Your task to perform on an android device: turn on the 24-hour format for clock Image 0: 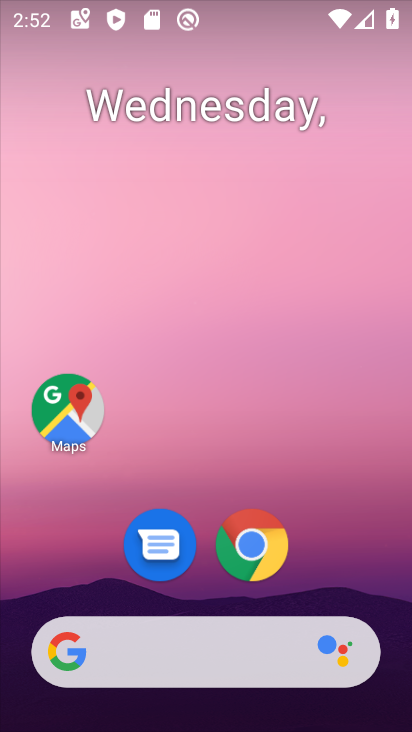
Step 0: press home button
Your task to perform on an android device: turn on the 24-hour format for clock Image 1: 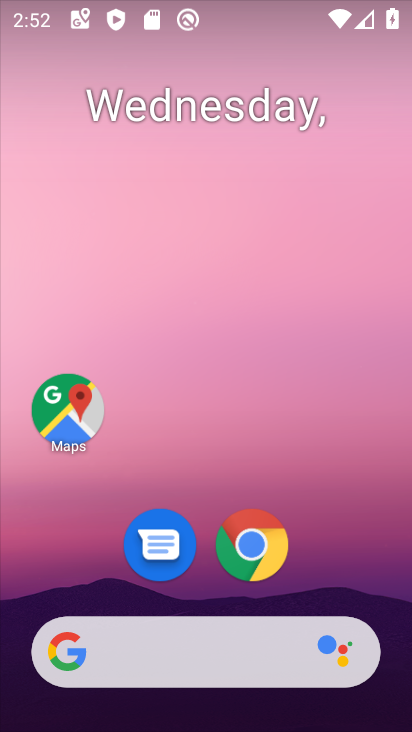
Step 1: drag from (175, 656) to (323, 125)
Your task to perform on an android device: turn on the 24-hour format for clock Image 2: 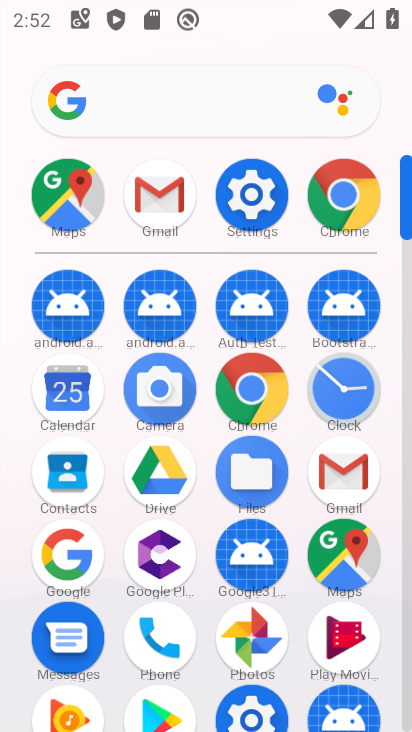
Step 2: click (359, 397)
Your task to perform on an android device: turn on the 24-hour format for clock Image 3: 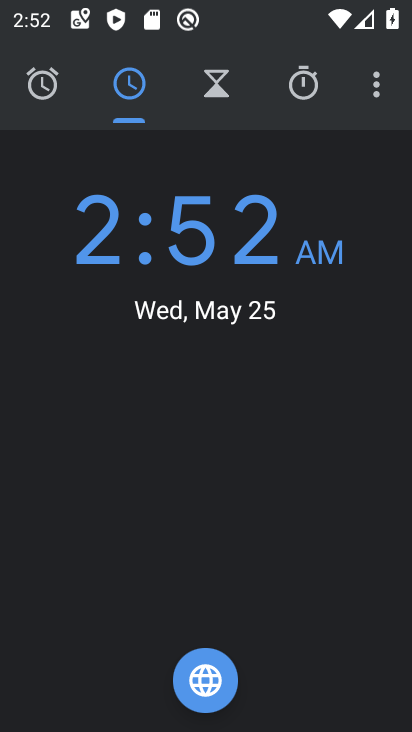
Step 3: click (371, 105)
Your task to perform on an android device: turn on the 24-hour format for clock Image 4: 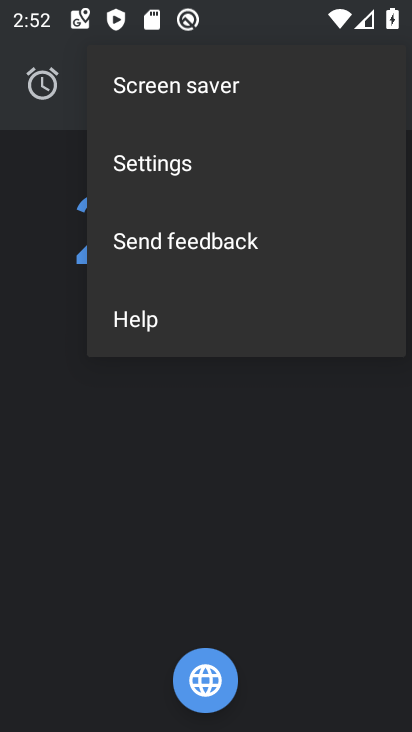
Step 4: click (155, 175)
Your task to perform on an android device: turn on the 24-hour format for clock Image 5: 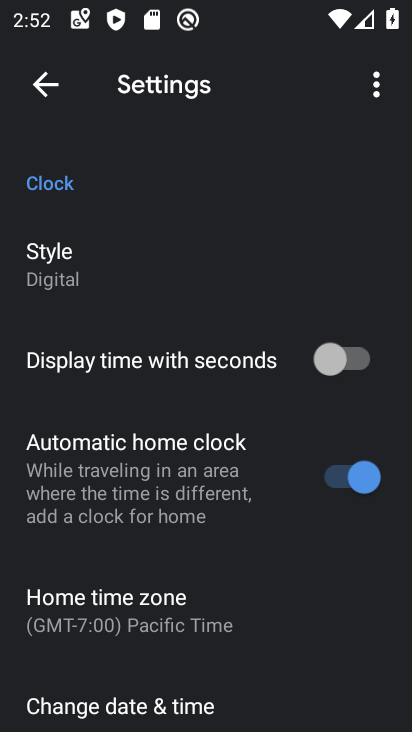
Step 5: drag from (159, 597) to (278, 159)
Your task to perform on an android device: turn on the 24-hour format for clock Image 6: 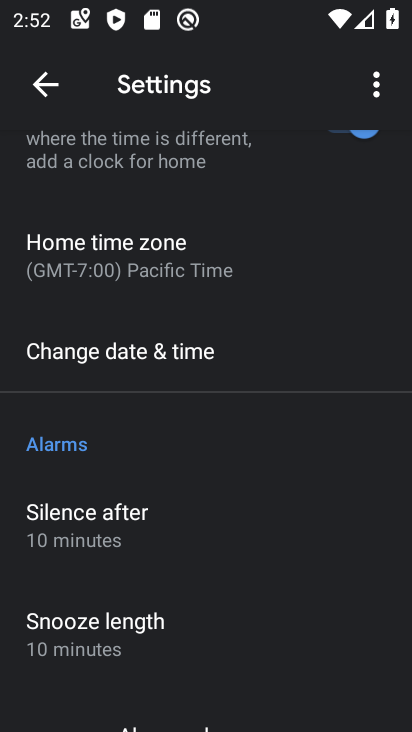
Step 6: click (140, 354)
Your task to perform on an android device: turn on the 24-hour format for clock Image 7: 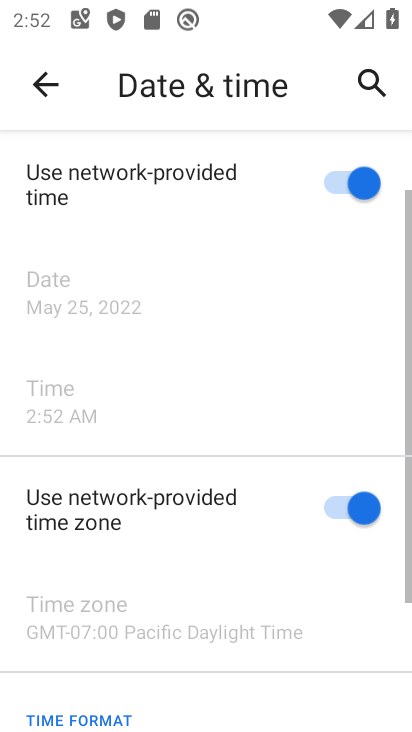
Step 7: drag from (167, 595) to (299, 194)
Your task to perform on an android device: turn on the 24-hour format for clock Image 8: 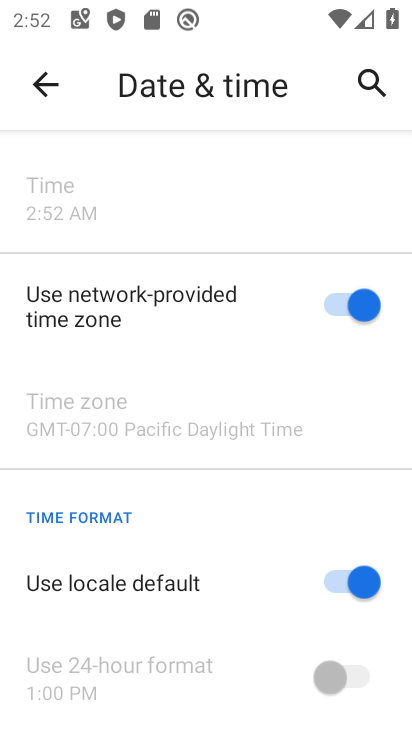
Step 8: click (330, 586)
Your task to perform on an android device: turn on the 24-hour format for clock Image 9: 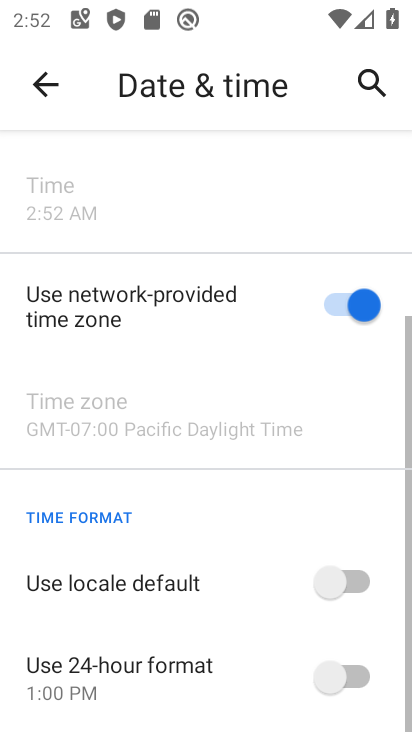
Step 9: click (359, 680)
Your task to perform on an android device: turn on the 24-hour format for clock Image 10: 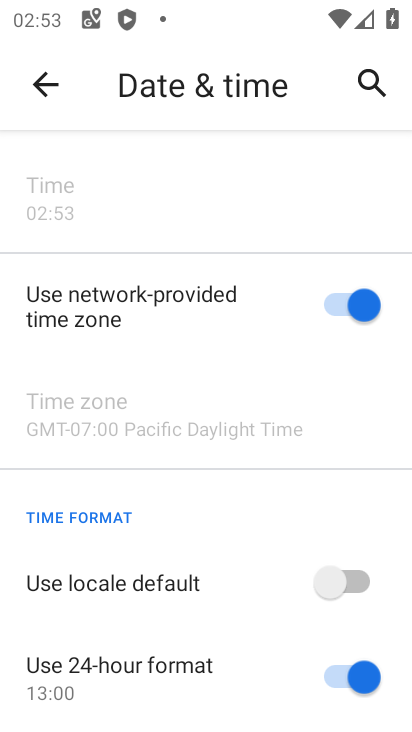
Step 10: task complete